Your task to perform on an android device: turn on airplane mode Image 0: 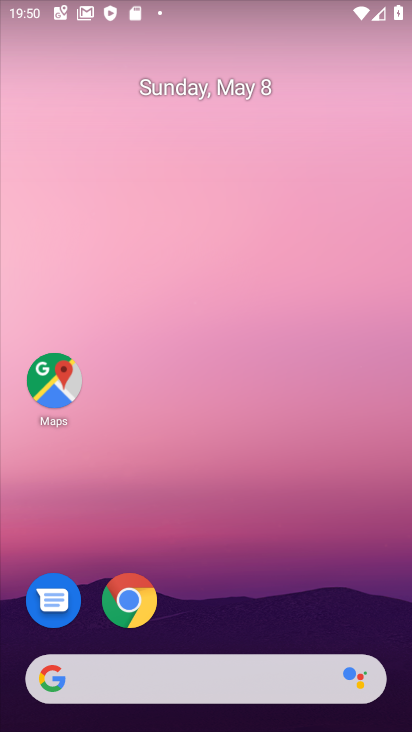
Step 0: click (180, 220)
Your task to perform on an android device: turn on airplane mode Image 1: 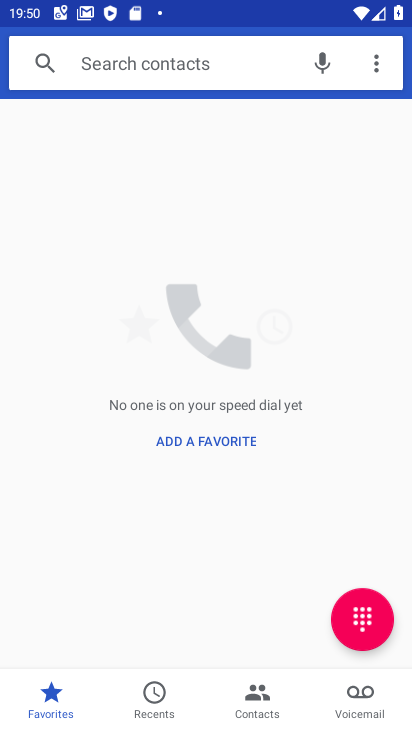
Step 1: press home button
Your task to perform on an android device: turn on airplane mode Image 2: 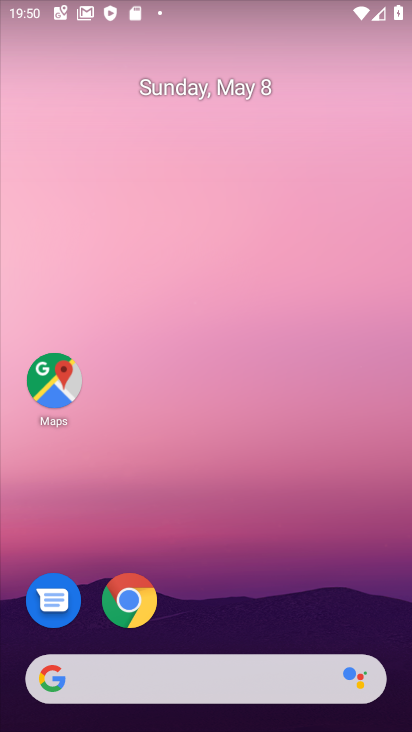
Step 2: drag from (325, 704) to (315, 207)
Your task to perform on an android device: turn on airplane mode Image 3: 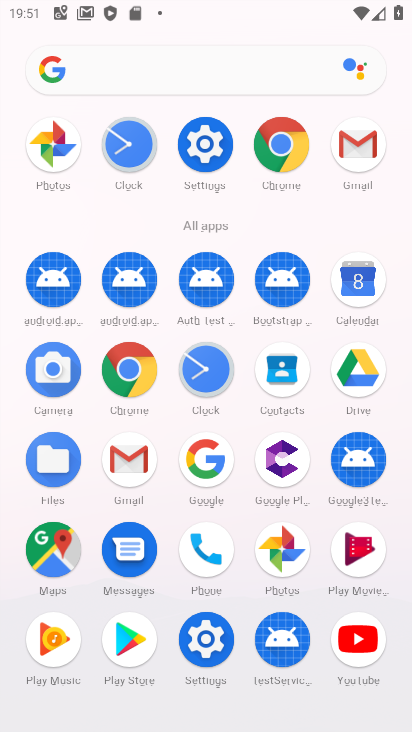
Step 3: click (197, 152)
Your task to perform on an android device: turn on airplane mode Image 4: 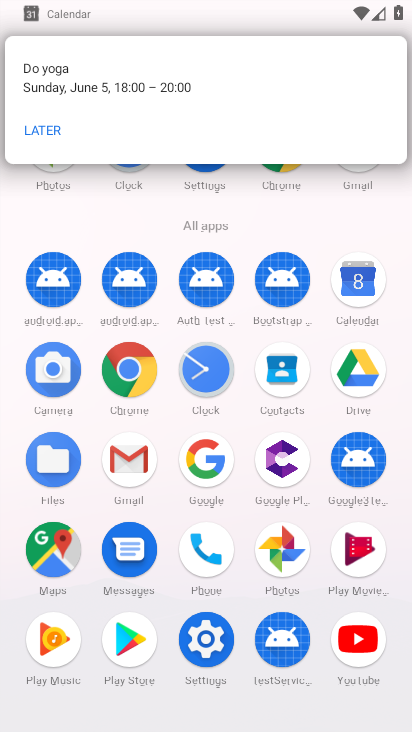
Step 4: click (202, 178)
Your task to perform on an android device: turn on airplane mode Image 5: 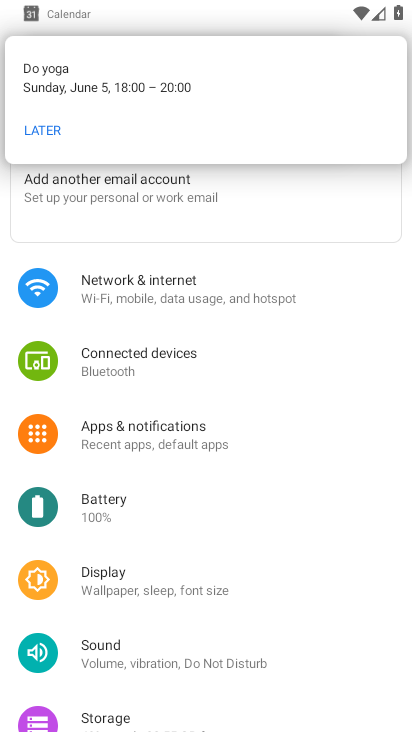
Step 5: click (169, 309)
Your task to perform on an android device: turn on airplane mode Image 6: 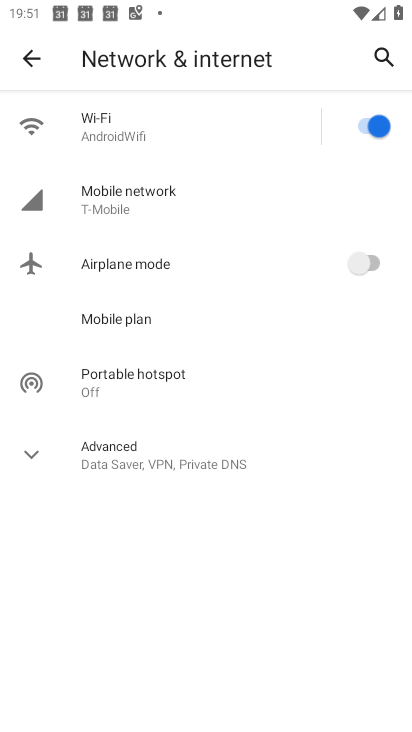
Step 6: click (373, 259)
Your task to perform on an android device: turn on airplane mode Image 7: 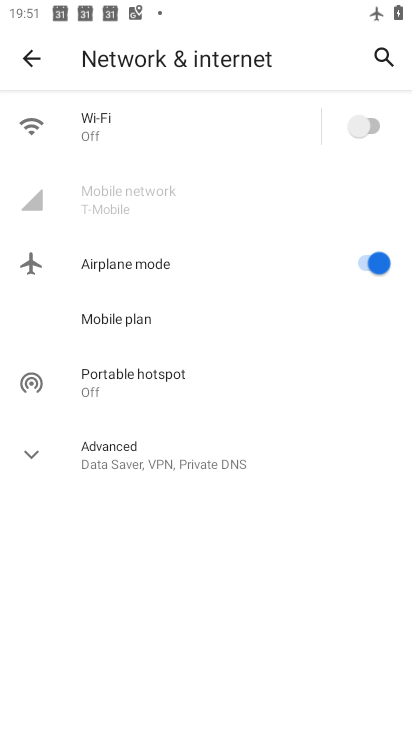
Step 7: task complete